Your task to perform on an android device: Is it going to rain today? Image 0: 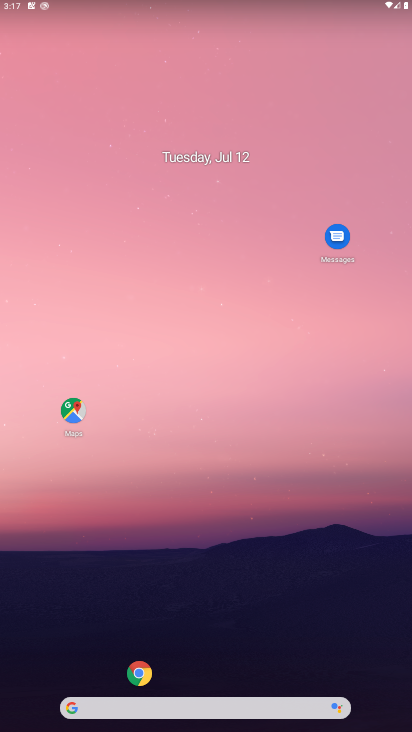
Step 0: click (109, 700)
Your task to perform on an android device: Is it going to rain today? Image 1: 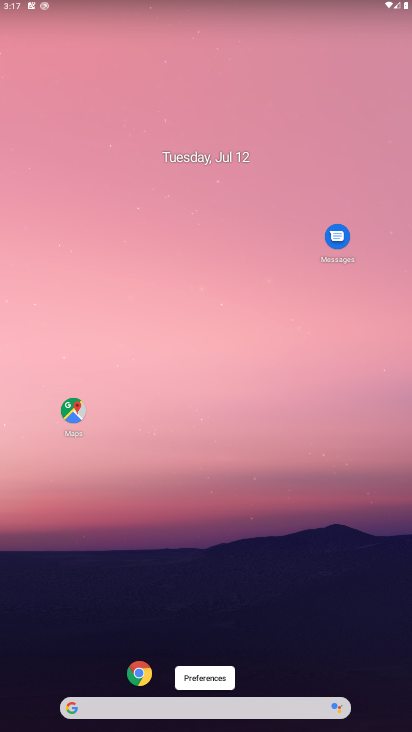
Step 1: click (101, 704)
Your task to perform on an android device: Is it going to rain today? Image 2: 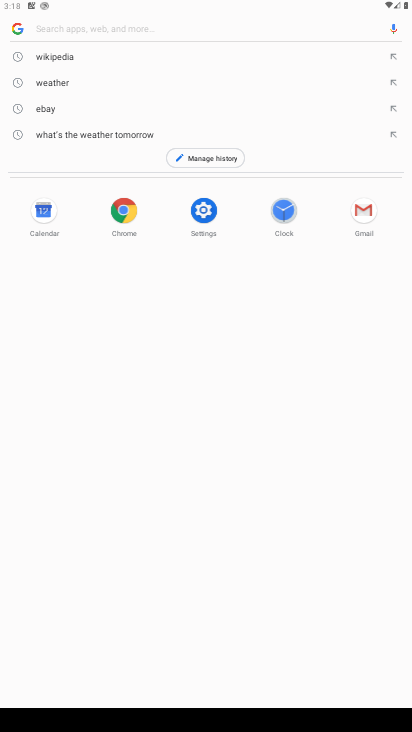
Step 2: type "Is it going to rain today?"
Your task to perform on an android device: Is it going to rain today? Image 3: 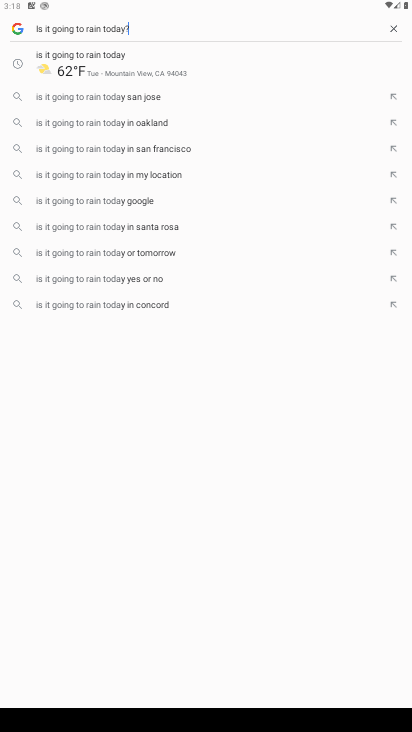
Step 3: type ""
Your task to perform on an android device: Is it going to rain today? Image 4: 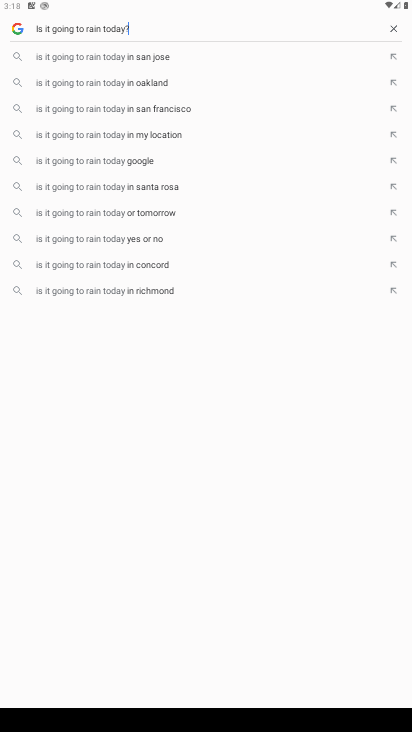
Step 4: task complete